Your task to perform on an android device: Is it going to rain today? Image 0: 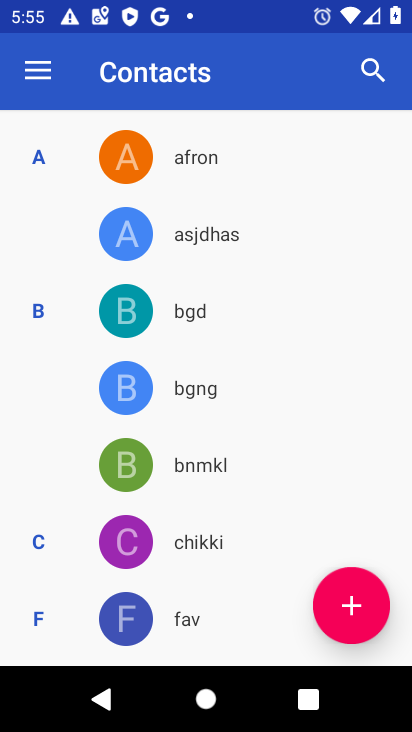
Step 0: press home button
Your task to perform on an android device: Is it going to rain today? Image 1: 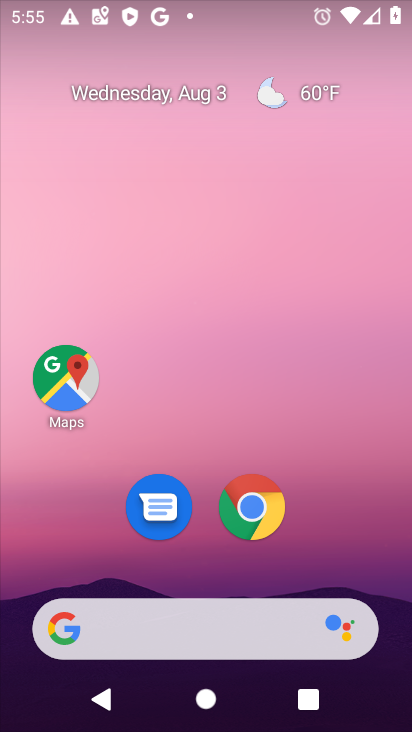
Step 1: click (308, 98)
Your task to perform on an android device: Is it going to rain today? Image 2: 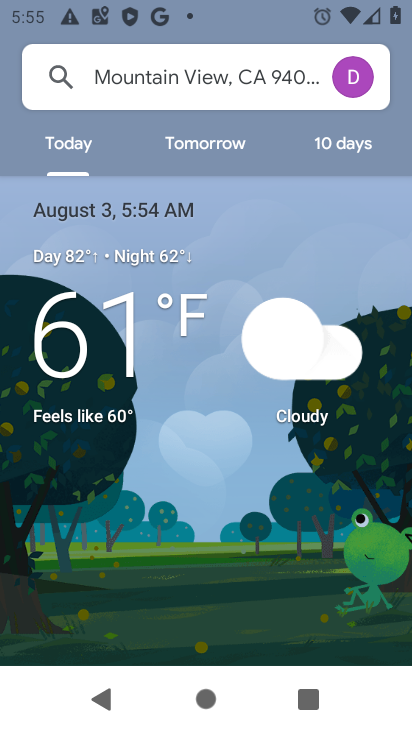
Step 2: task complete